Your task to perform on an android device: Search for the best-rated coffee table on Crate & Barrel Image 0: 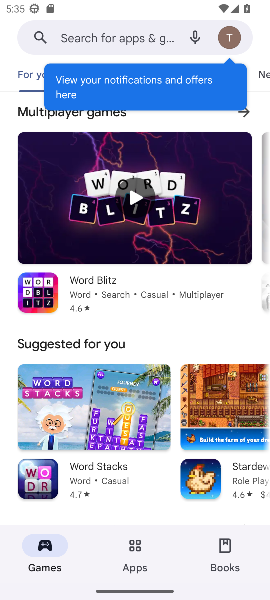
Step 0: press home button
Your task to perform on an android device: Search for the best-rated coffee table on Crate & Barrel Image 1: 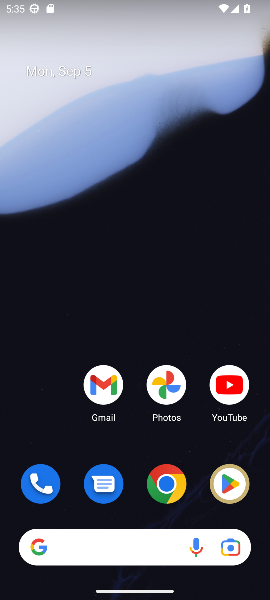
Step 1: click (168, 485)
Your task to perform on an android device: Search for the best-rated coffee table on Crate & Barrel Image 2: 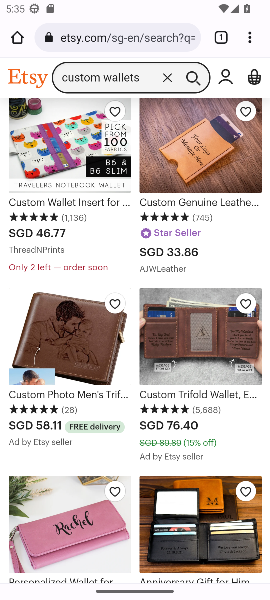
Step 2: click (130, 37)
Your task to perform on an android device: Search for the best-rated coffee table on Crate & Barrel Image 3: 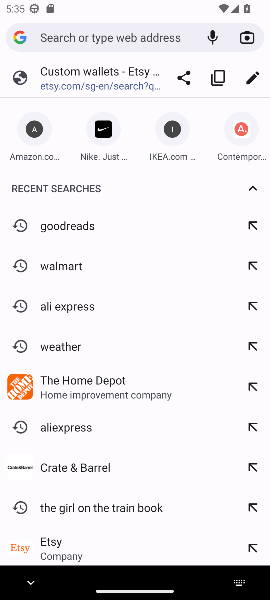
Step 3: type " Crate & Barrel"
Your task to perform on an android device: Search for the best-rated coffee table on Crate & Barrel Image 4: 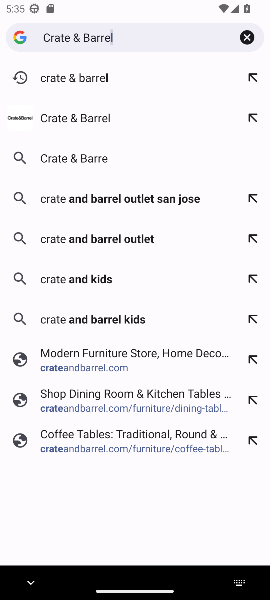
Step 4: press enter
Your task to perform on an android device: Search for the best-rated coffee table on Crate & Barrel Image 5: 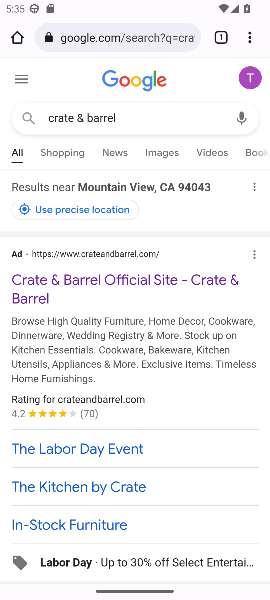
Step 5: drag from (88, 475) to (142, 215)
Your task to perform on an android device: Search for the best-rated coffee table on Crate & Barrel Image 6: 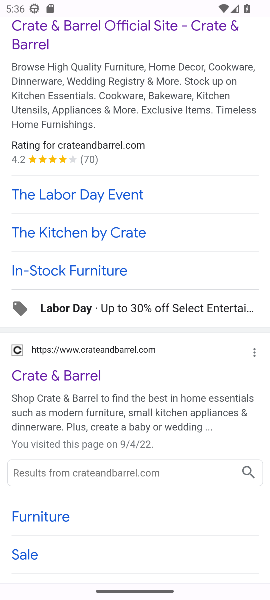
Step 6: click (64, 369)
Your task to perform on an android device: Search for the best-rated coffee table on Crate & Barrel Image 7: 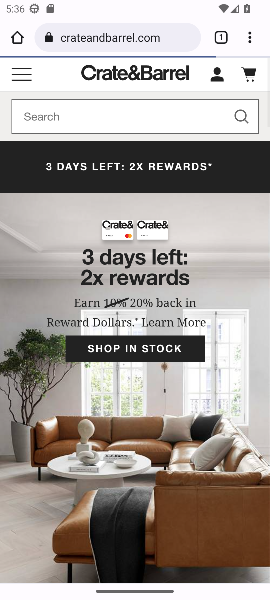
Step 7: click (165, 119)
Your task to perform on an android device: Search for the best-rated coffee table on Crate & Barrel Image 8: 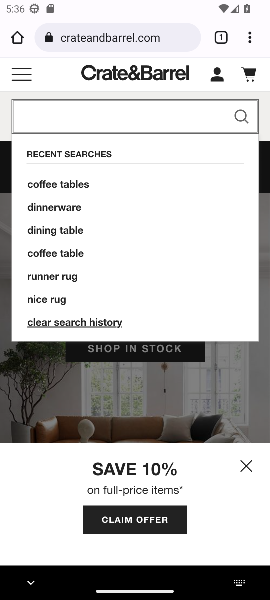
Step 8: type "coffee table"
Your task to perform on an android device: Search for the best-rated coffee table on Crate & Barrel Image 9: 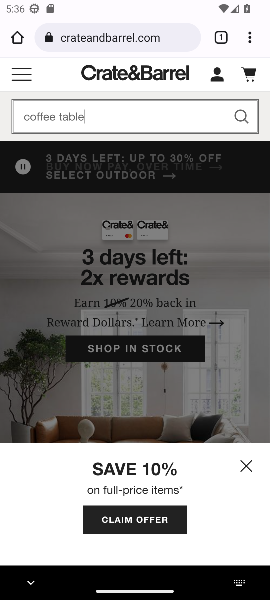
Step 9: press enter
Your task to perform on an android device: Search for the best-rated coffee table on Crate & Barrel Image 10: 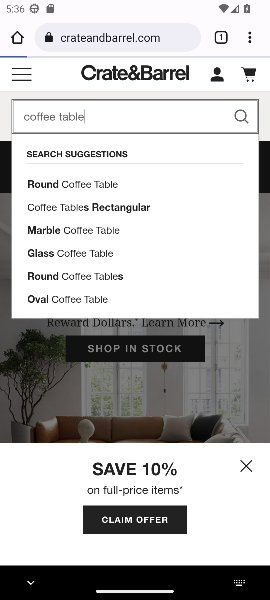
Step 10: click (240, 115)
Your task to perform on an android device: Search for the best-rated coffee table on Crate & Barrel Image 11: 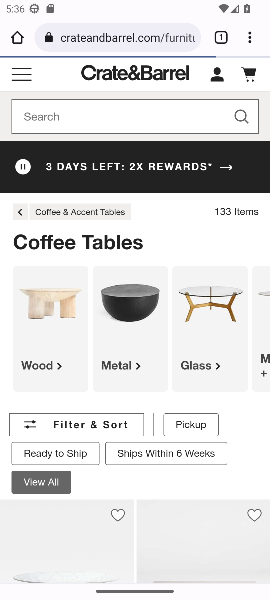
Step 11: task complete